Your task to perform on an android device: Go to settings Image 0: 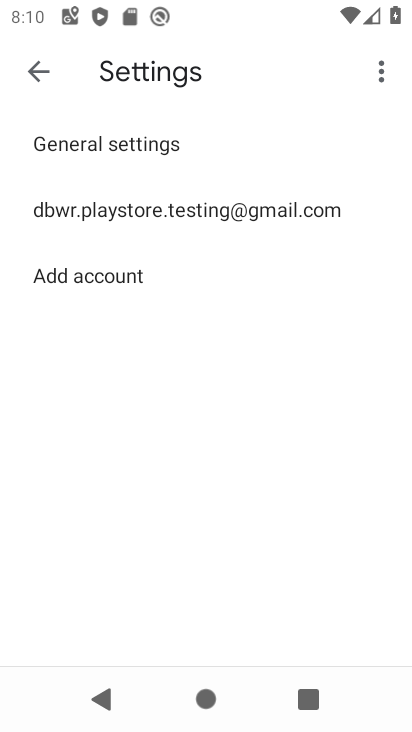
Step 0: press home button
Your task to perform on an android device: Go to settings Image 1: 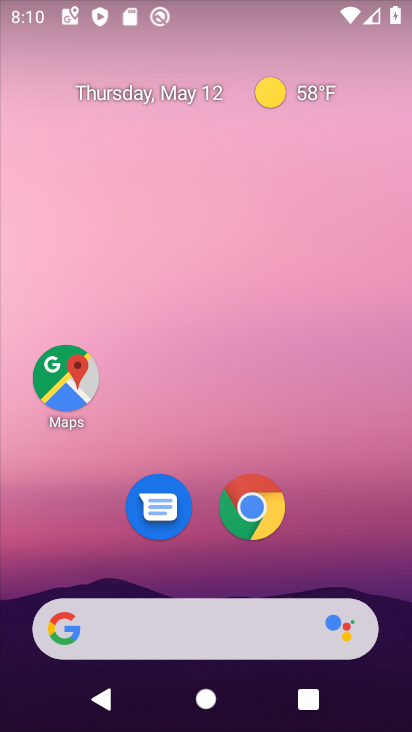
Step 1: drag from (208, 575) to (212, 157)
Your task to perform on an android device: Go to settings Image 2: 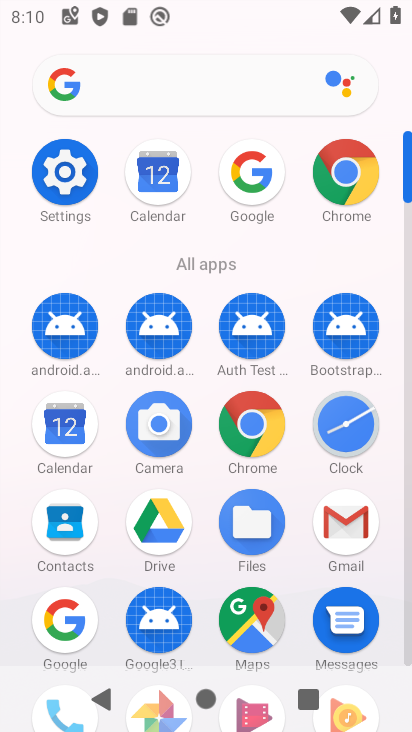
Step 2: click (47, 160)
Your task to perform on an android device: Go to settings Image 3: 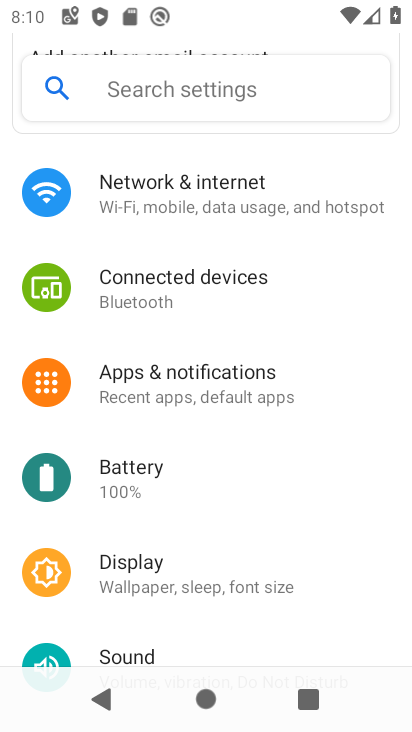
Step 3: task complete